Your task to perform on an android device: turn on showing notifications on the lock screen Image 0: 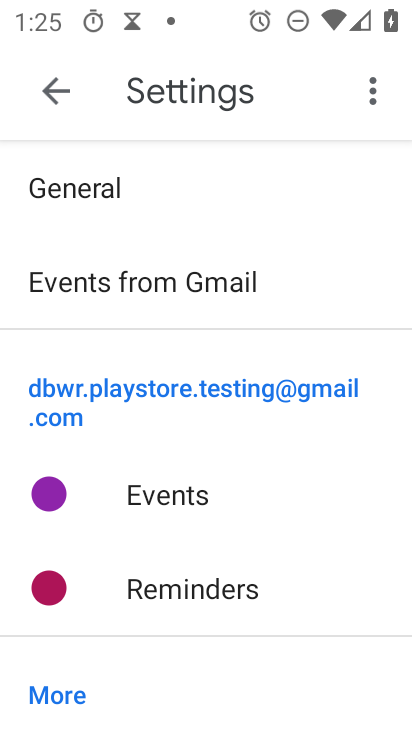
Step 0: press home button
Your task to perform on an android device: turn on showing notifications on the lock screen Image 1: 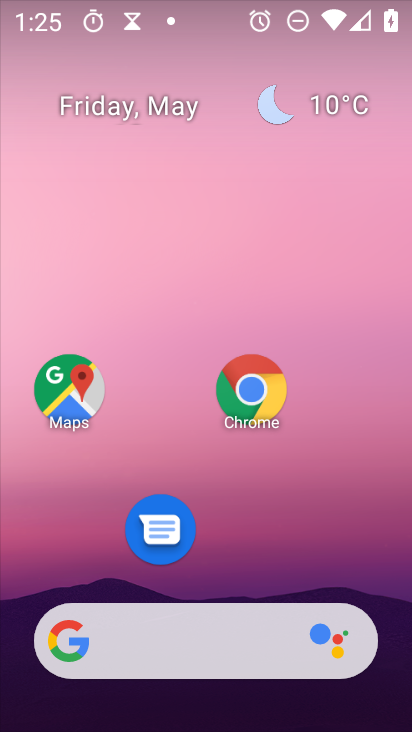
Step 1: click (242, 189)
Your task to perform on an android device: turn on showing notifications on the lock screen Image 2: 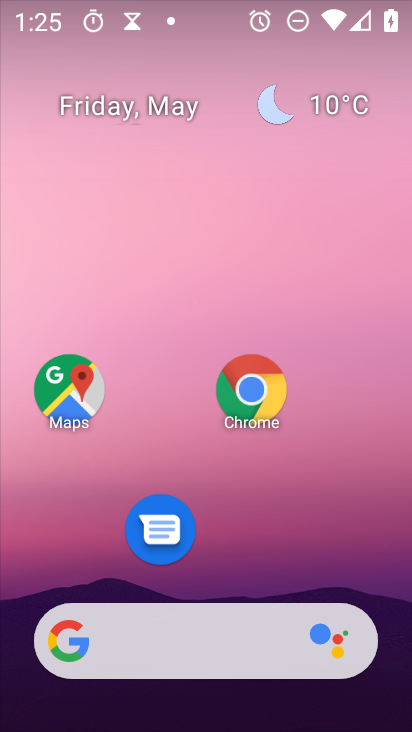
Step 2: drag from (158, 655) to (289, 208)
Your task to perform on an android device: turn on showing notifications on the lock screen Image 3: 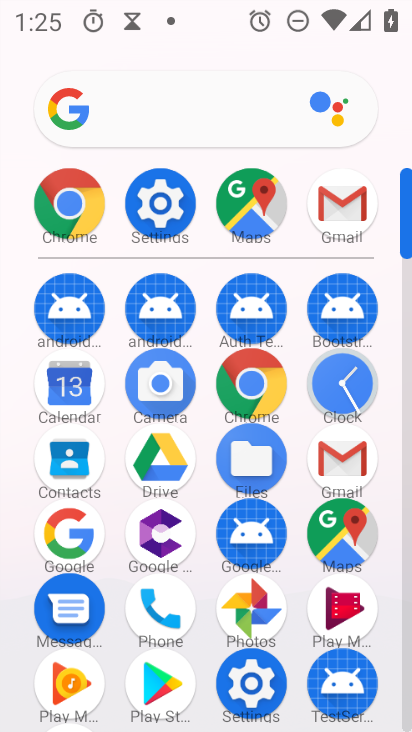
Step 3: click (170, 214)
Your task to perform on an android device: turn on showing notifications on the lock screen Image 4: 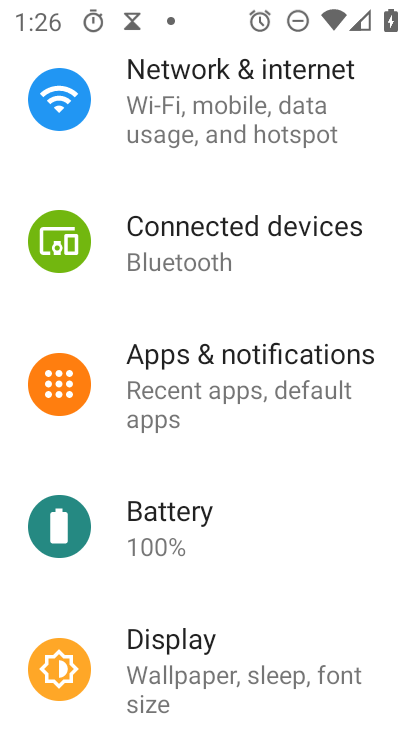
Step 4: click (229, 362)
Your task to perform on an android device: turn on showing notifications on the lock screen Image 5: 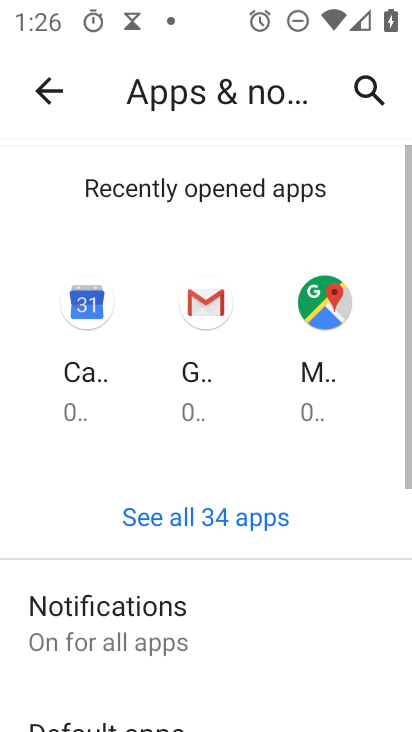
Step 5: drag from (176, 669) to (310, 224)
Your task to perform on an android device: turn on showing notifications on the lock screen Image 6: 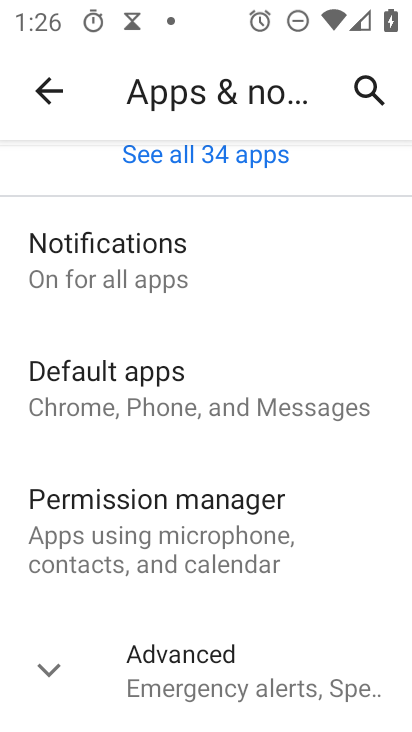
Step 6: click (103, 272)
Your task to perform on an android device: turn on showing notifications on the lock screen Image 7: 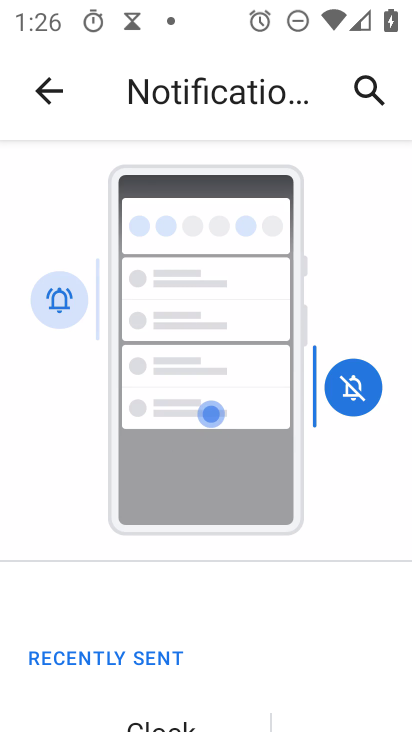
Step 7: drag from (191, 685) to (352, 239)
Your task to perform on an android device: turn on showing notifications on the lock screen Image 8: 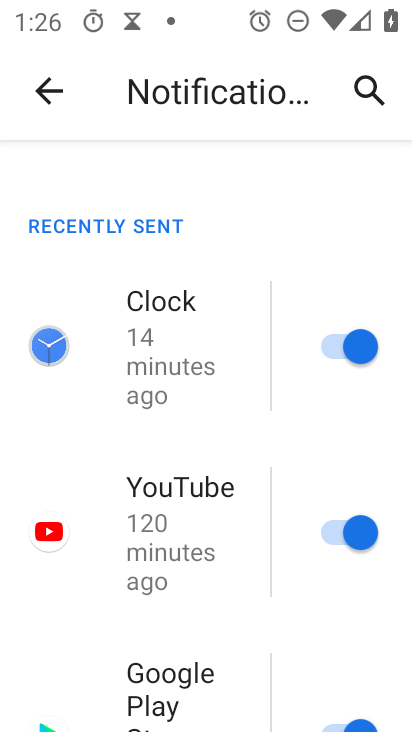
Step 8: drag from (188, 635) to (339, 117)
Your task to perform on an android device: turn on showing notifications on the lock screen Image 9: 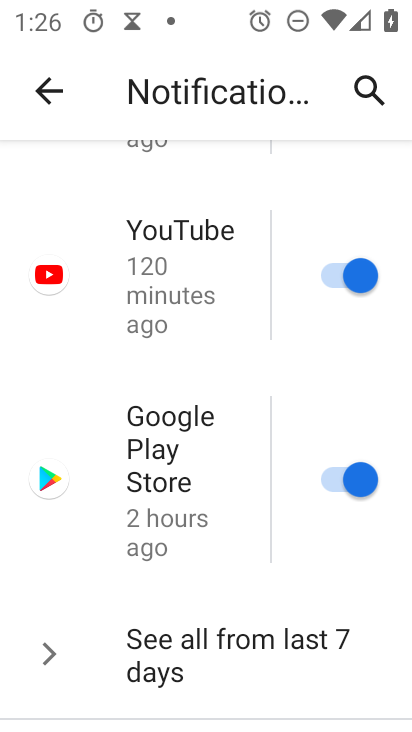
Step 9: drag from (224, 573) to (306, 187)
Your task to perform on an android device: turn on showing notifications on the lock screen Image 10: 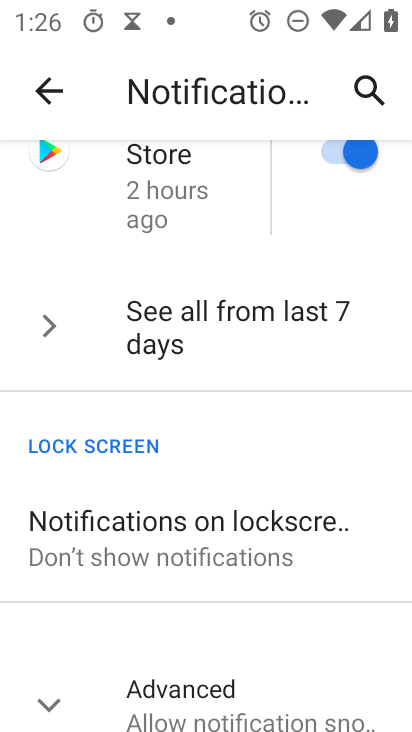
Step 10: click (203, 557)
Your task to perform on an android device: turn on showing notifications on the lock screen Image 11: 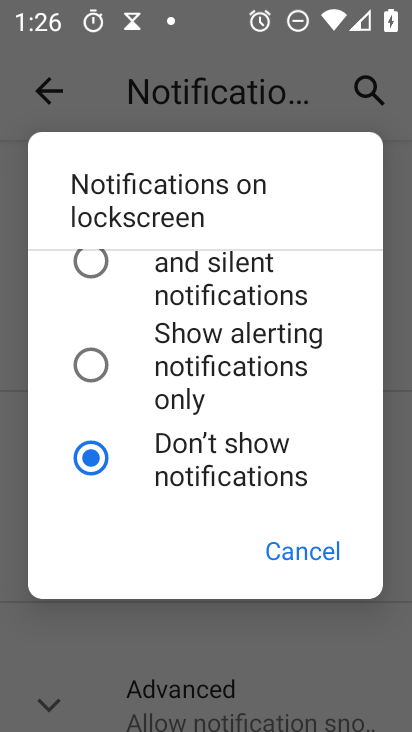
Step 11: drag from (133, 286) to (138, 531)
Your task to perform on an android device: turn on showing notifications on the lock screen Image 12: 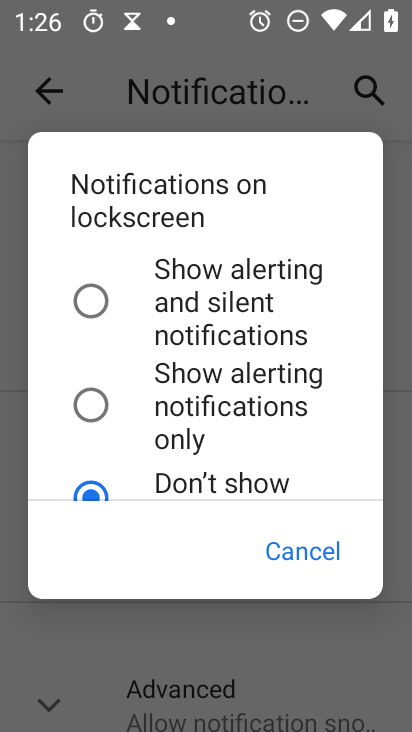
Step 12: click (90, 302)
Your task to perform on an android device: turn on showing notifications on the lock screen Image 13: 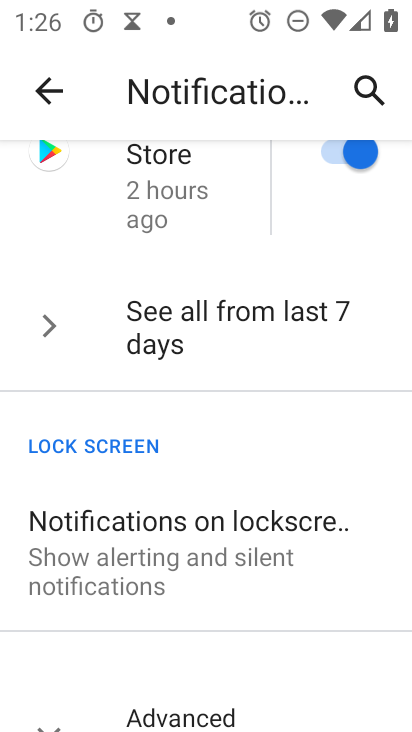
Step 13: task complete